Your task to perform on an android device: Open the phone app and click the voicemail tab. Image 0: 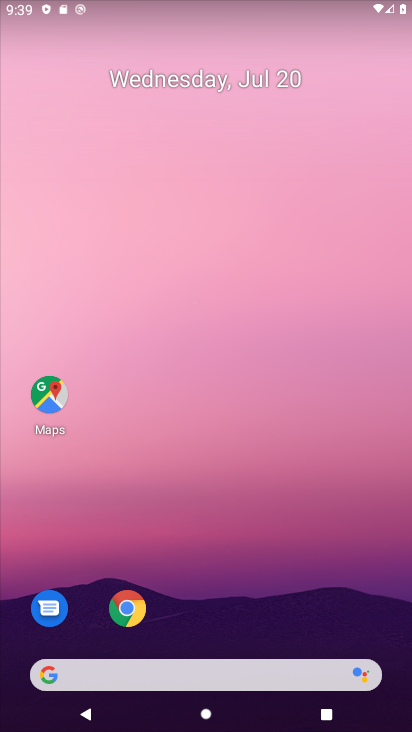
Step 0: drag from (183, 503) to (162, 242)
Your task to perform on an android device: Open the phone app and click the voicemail tab. Image 1: 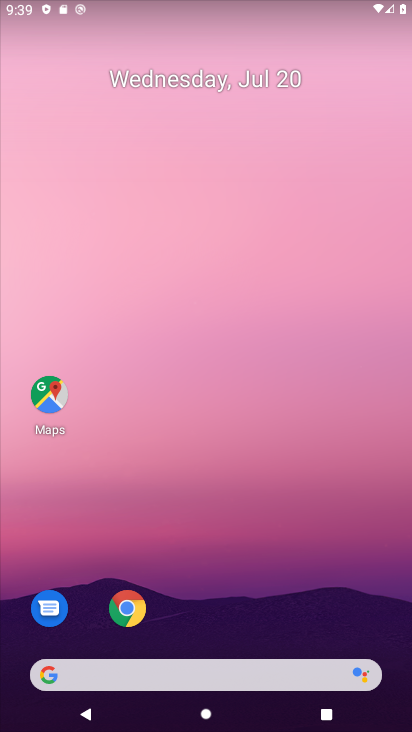
Step 1: drag from (241, 427) to (252, 168)
Your task to perform on an android device: Open the phone app and click the voicemail tab. Image 2: 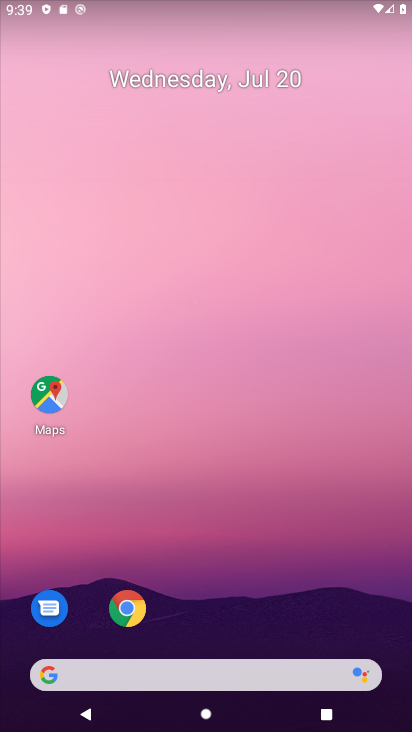
Step 2: drag from (237, 639) to (279, 228)
Your task to perform on an android device: Open the phone app and click the voicemail tab. Image 3: 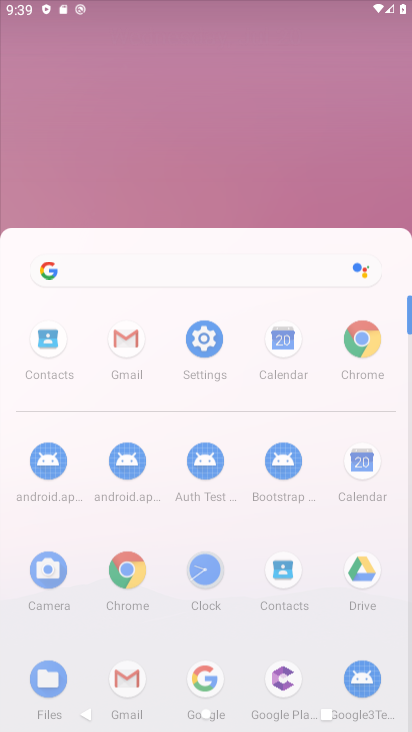
Step 3: drag from (255, 570) to (238, 185)
Your task to perform on an android device: Open the phone app and click the voicemail tab. Image 4: 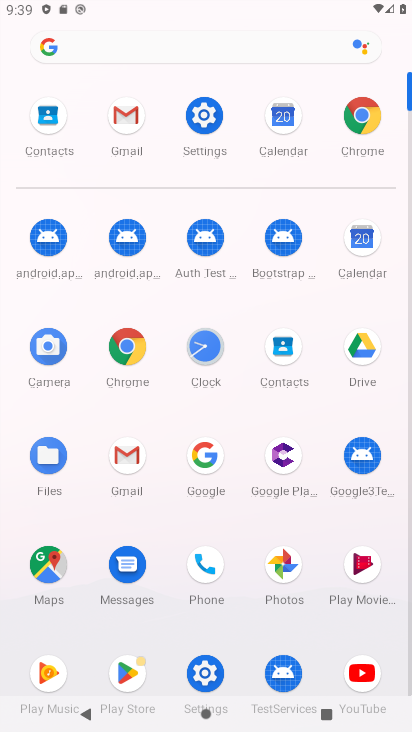
Step 4: click (208, 562)
Your task to perform on an android device: Open the phone app and click the voicemail tab. Image 5: 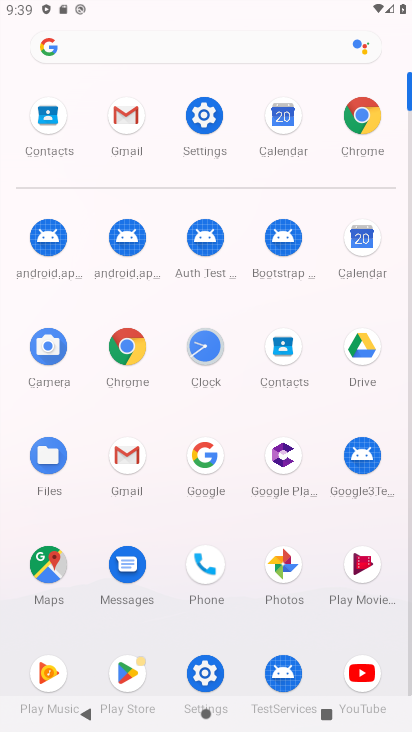
Step 5: click (208, 562)
Your task to perform on an android device: Open the phone app and click the voicemail tab. Image 6: 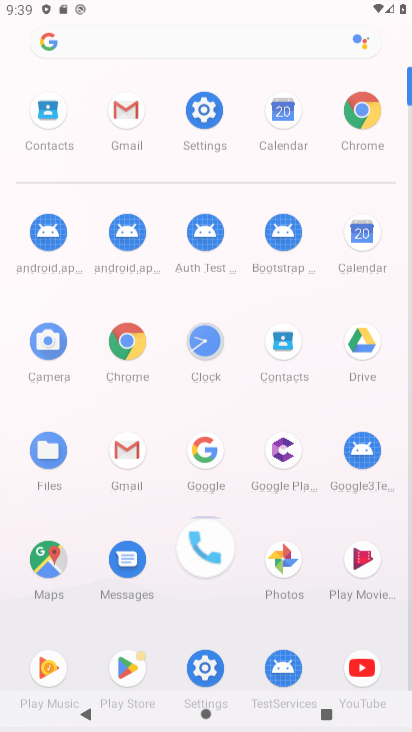
Step 6: click (214, 564)
Your task to perform on an android device: Open the phone app and click the voicemail tab. Image 7: 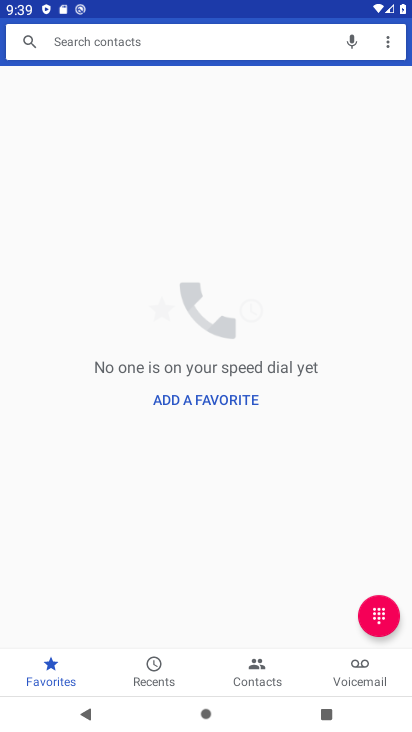
Step 7: click (367, 683)
Your task to perform on an android device: Open the phone app and click the voicemail tab. Image 8: 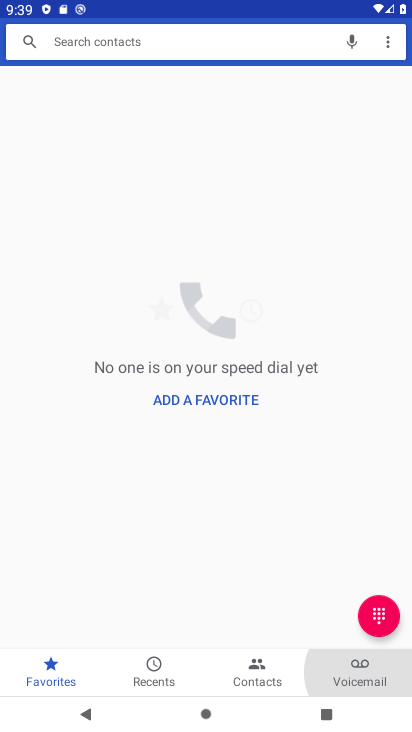
Step 8: click (361, 671)
Your task to perform on an android device: Open the phone app and click the voicemail tab. Image 9: 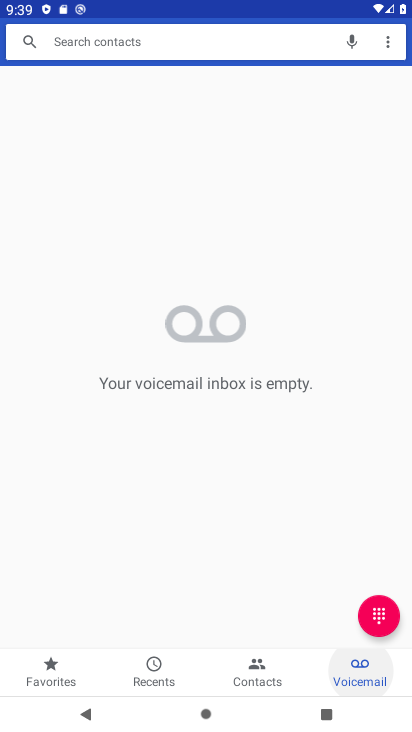
Step 9: click (362, 678)
Your task to perform on an android device: Open the phone app and click the voicemail tab. Image 10: 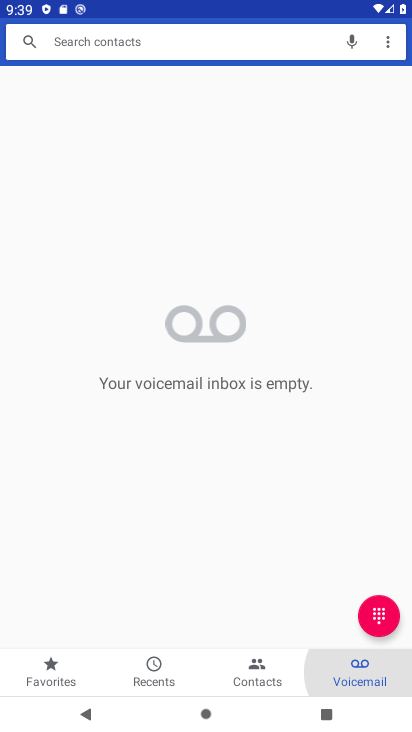
Step 10: click (366, 676)
Your task to perform on an android device: Open the phone app and click the voicemail tab. Image 11: 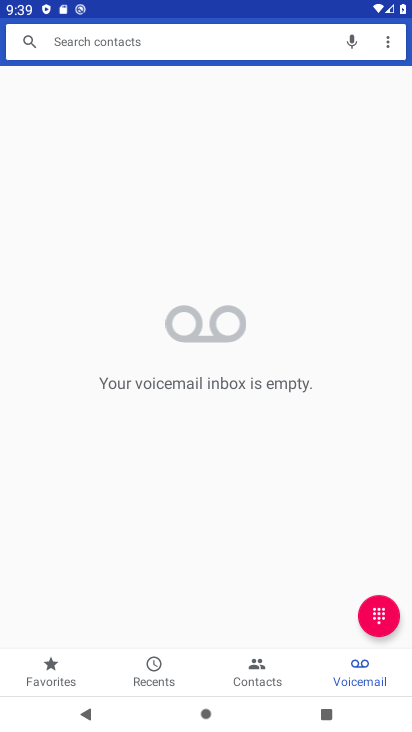
Step 11: task complete